Your task to perform on an android device: Check the news Image 0: 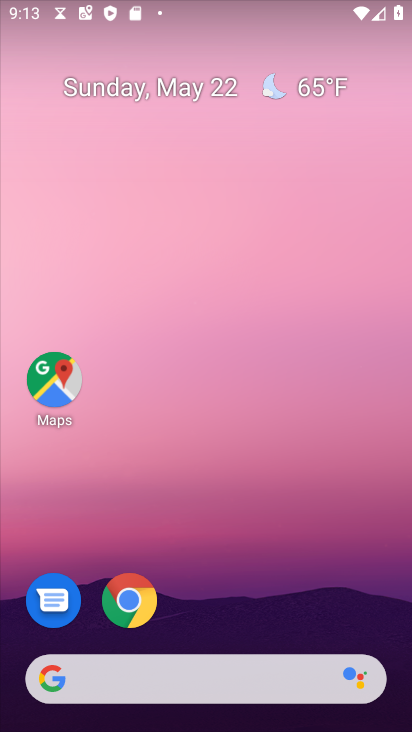
Step 0: drag from (208, 607) to (233, 340)
Your task to perform on an android device: Check the news Image 1: 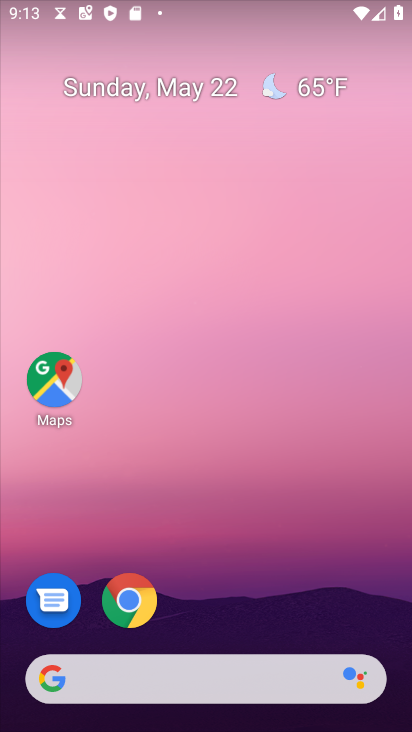
Step 1: click (159, 690)
Your task to perform on an android device: Check the news Image 2: 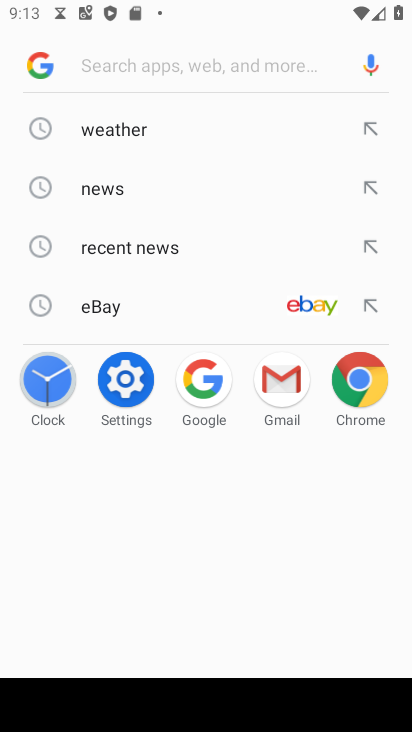
Step 2: click (117, 193)
Your task to perform on an android device: Check the news Image 3: 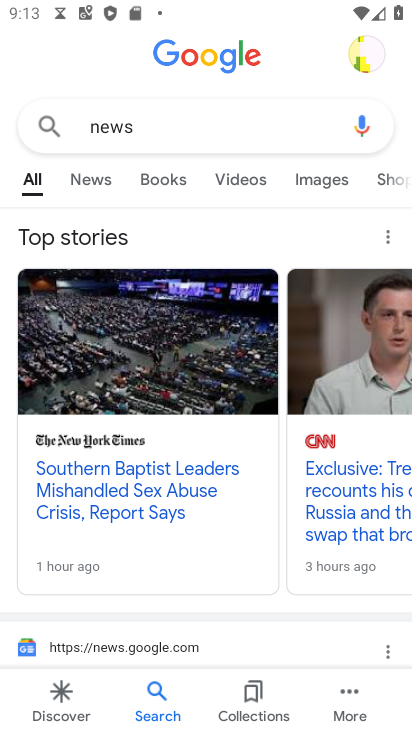
Step 3: task complete